Your task to perform on an android device: Open eBay Image 0: 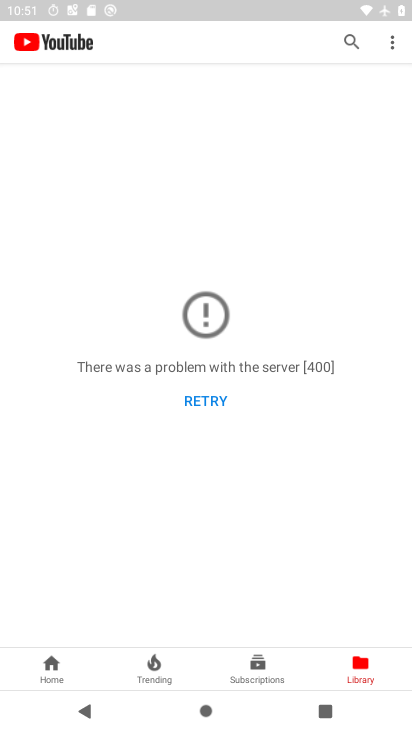
Step 0: press home button
Your task to perform on an android device: Open eBay Image 1: 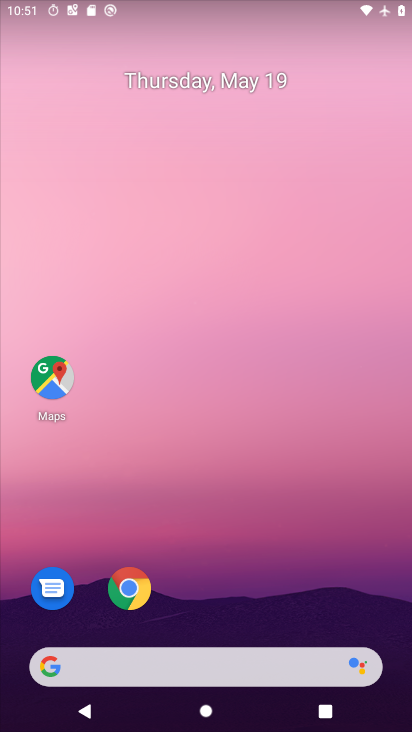
Step 1: click (141, 596)
Your task to perform on an android device: Open eBay Image 2: 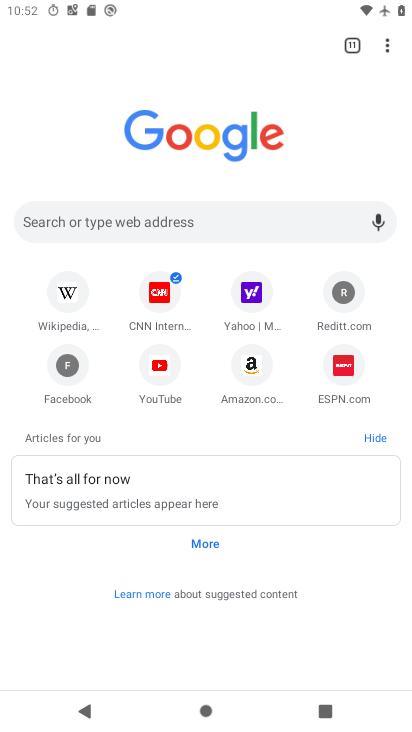
Step 2: click (122, 221)
Your task to perform on an android device: Open eBay Image 3: 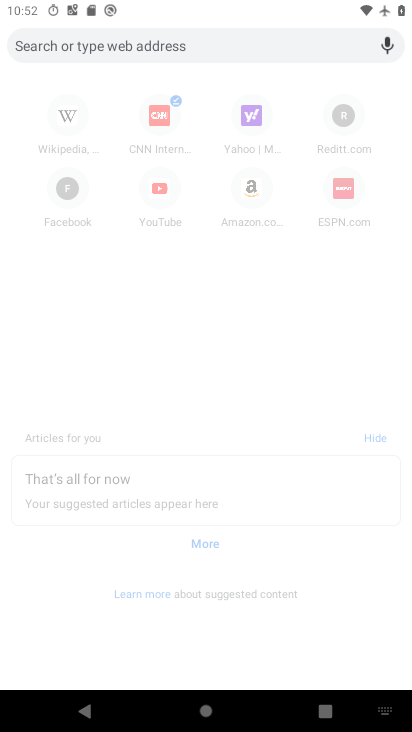
Step 3: type "ebay"
Your task to perform on an android device: Open eBay Image 4: 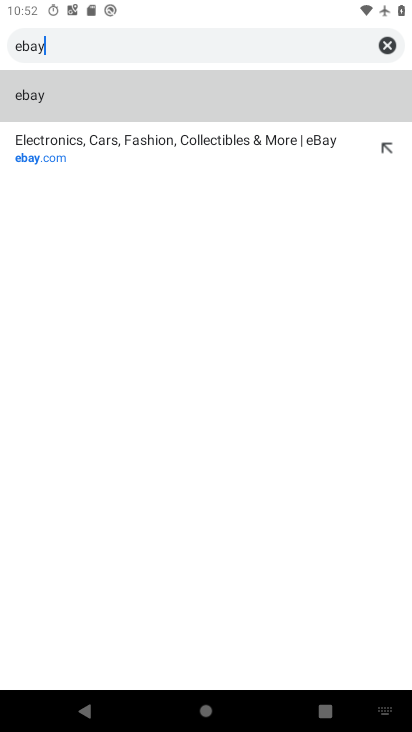
Step 4: click (94, 102)
Your task to perform on an android device: Open eBay Image 5: 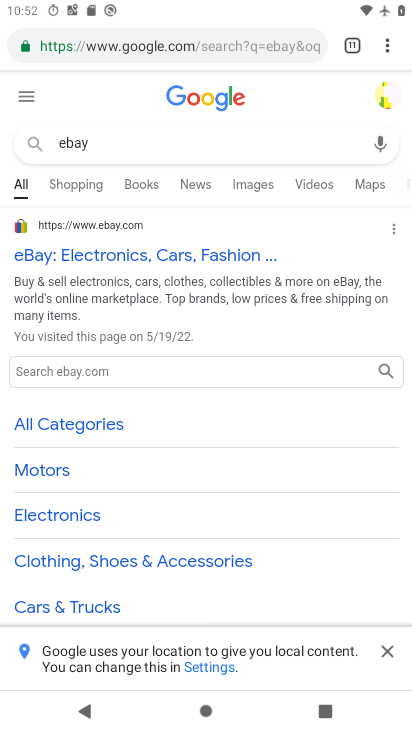
Step 5: click (188, 259)
Your task to perform on an android device: Open eBay Image 6: 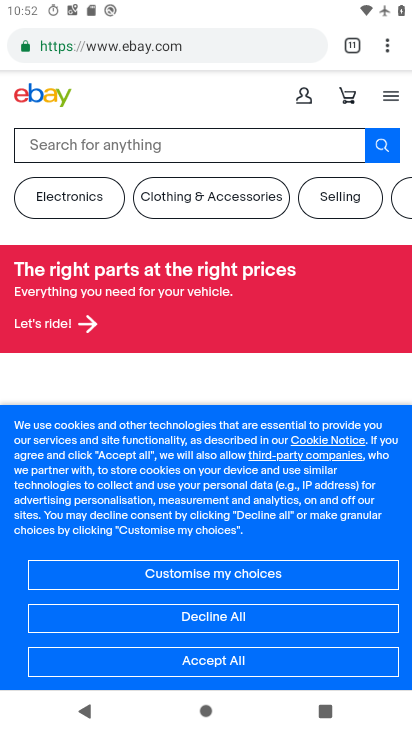
Step 6: task complete